Your task to perform on an android device: open app "Walmart Shopping & Grocery" Image 0: 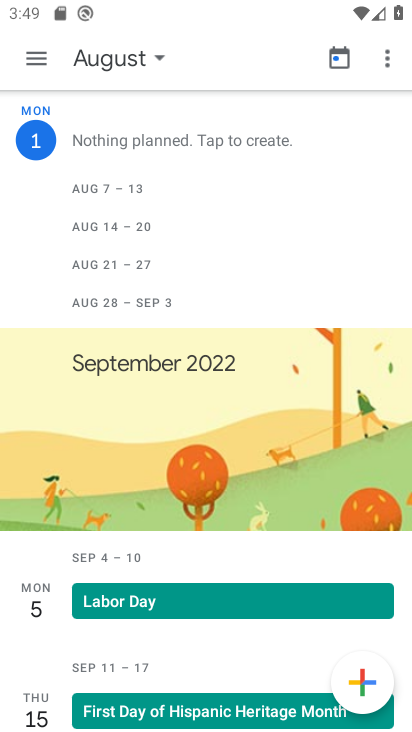
Step 0: press home button
Your task to perform on an android device: open app "Walmart Shopping & Grocery" Image 1: 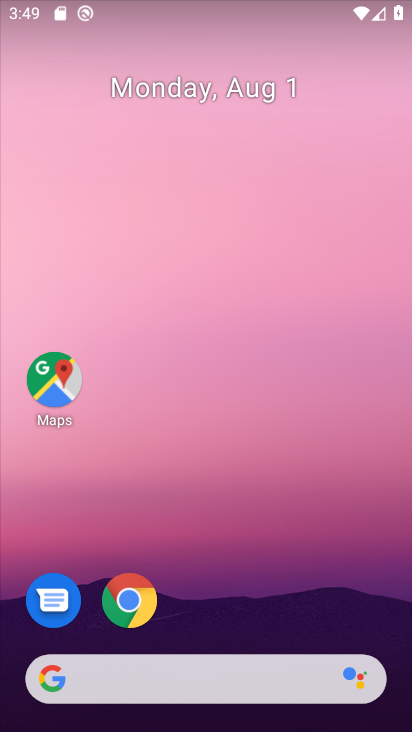
Step 1: drag from (313, 554) to (250, 71)
Your task to perform on an android device: open app "Walmart Shopping & Grocery" Image 2: 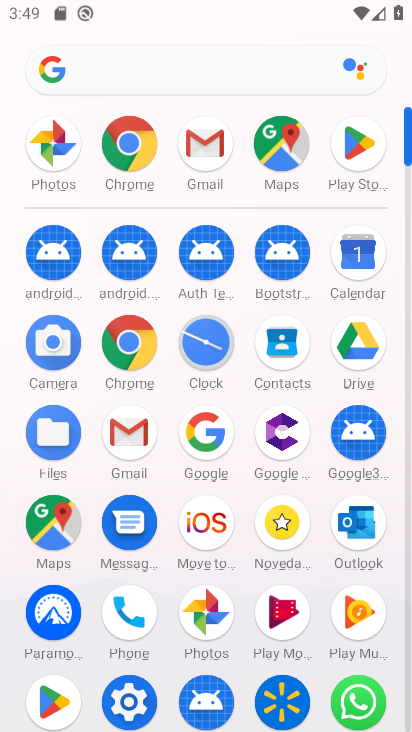
Step 2: click (347, 141)
Your task to perform on an android device: open app "Walmart Shopping & Grocery" Image 3: 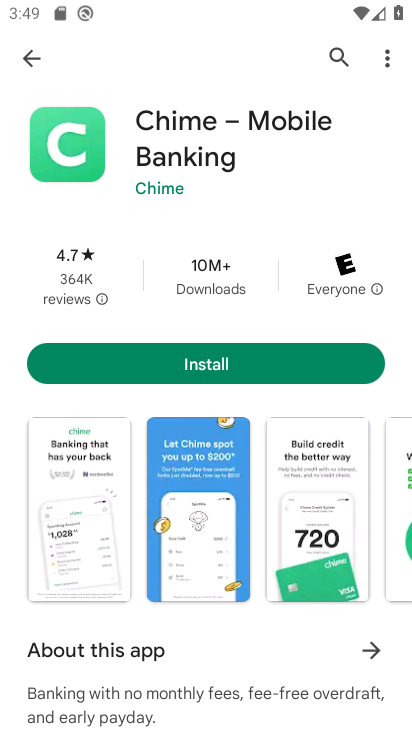
Step 3: click (328, 55)
Your task to perform on an android device: open app "Walmart Shopping & Grocery" Image 4: 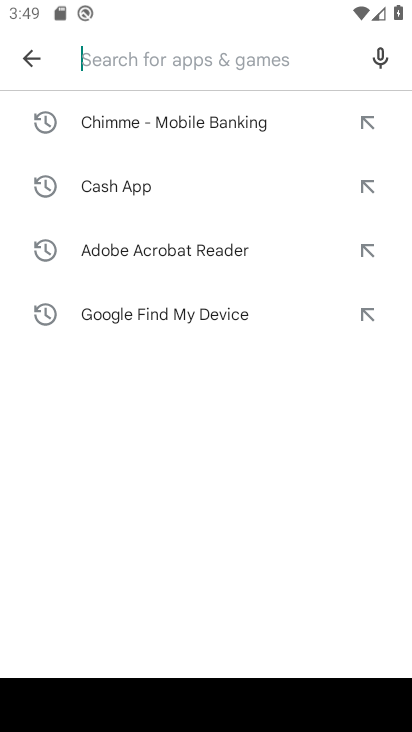
Step 4: type "Walmart Shopping & Grocery"
Your task to perform on an android device: open app "Walmart Shopping & Grocery" Image 5: 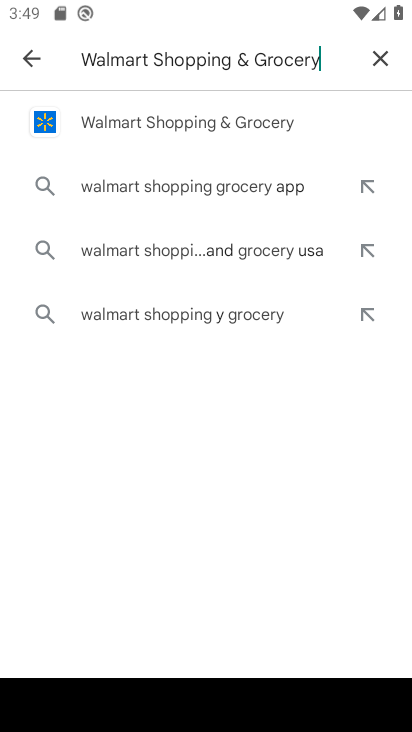
Step 5: click (176, 128)
Your task to perform on an android device: open app "Walmart Shopping & Grocery" Image 6: 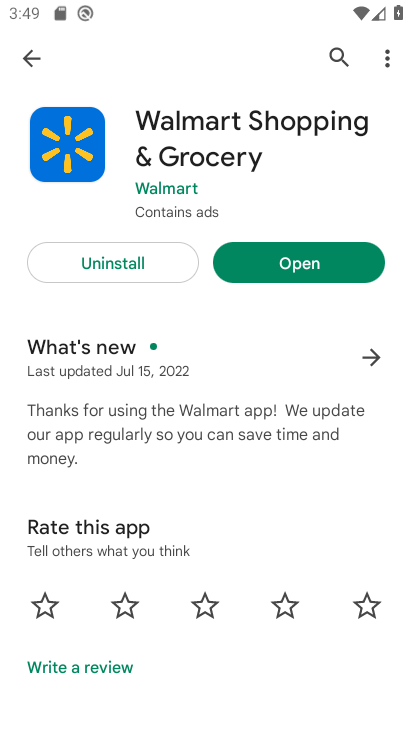
Step 6: click (315, 277)
Your task to perform on an android device: open app "Walmart Shopping & Grocery" Image 7: 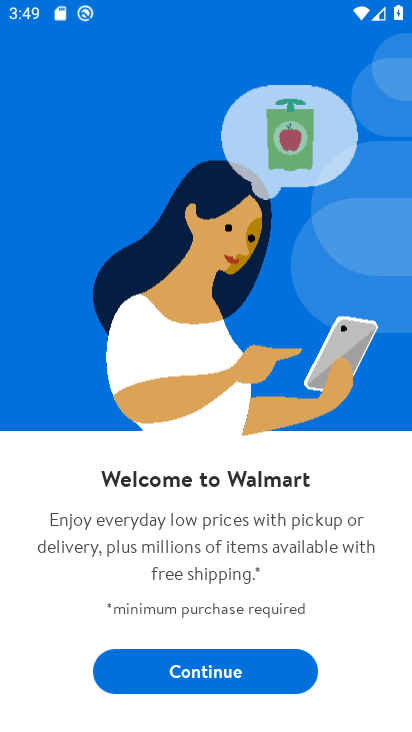
Step 7: task complete